Your task to perform on an android device: turn on javascript in the chrome app Image 0: 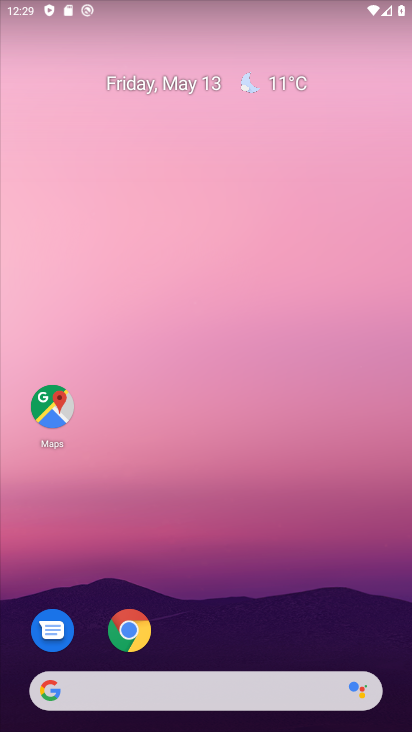
Step 0: click (130, 637)
Your task to perform on an android device: turn on javascript in the chrome app Image 1: 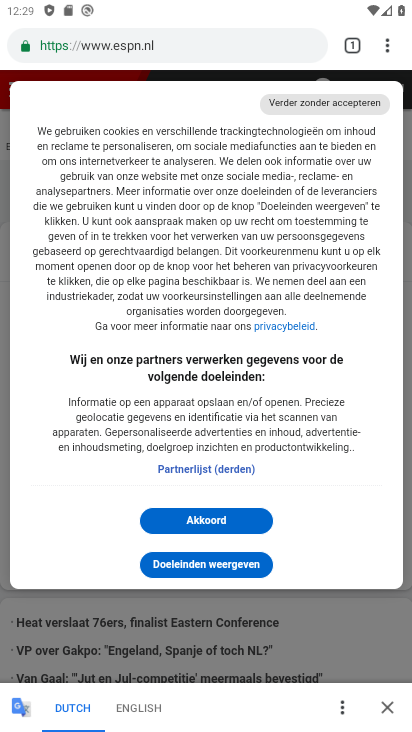
Step 1: drag from (387, 47) to (227, 552)
Your task to perform on an android device: turn on javascript in the chrome app Image 2: 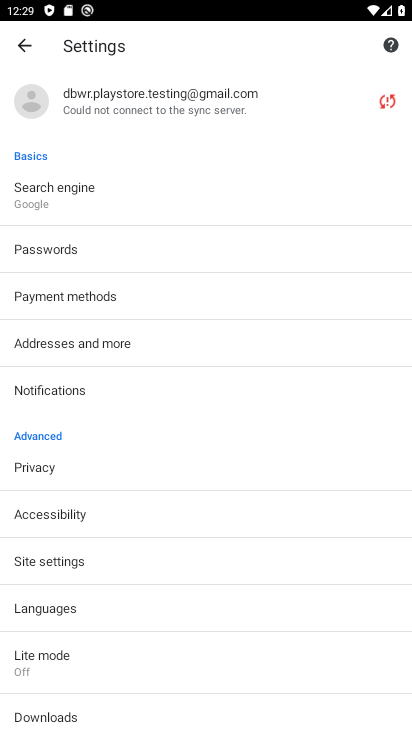
Step 2: click (57, 565)
Your task to perform on an android device: turn on javascript in the chrome app Image 3: 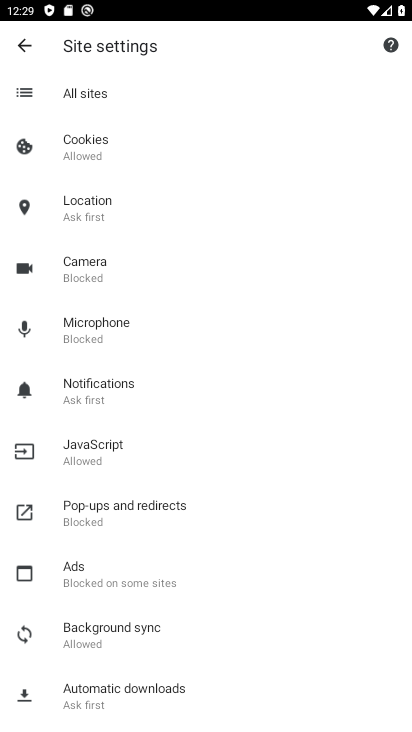
Step 3: click (90, 452)
Your task to perform on an android device: turn on javascript in the chrome app Image 4: 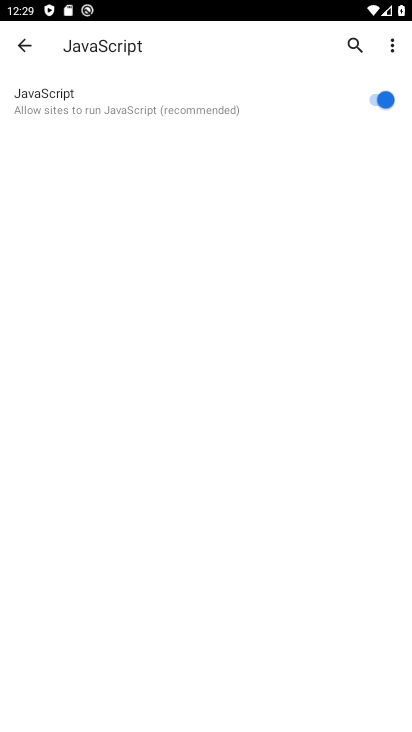
Step 4: task complete